Your task to perform on an android device: Open Android settings Image 0: 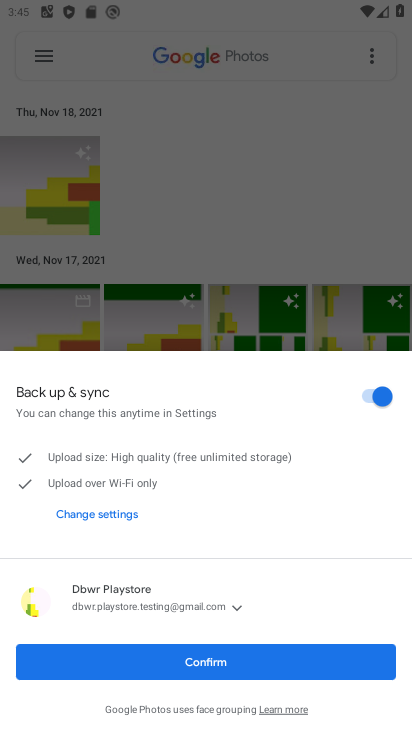
Step 0: press home button
Your task to perform on an android device: Open Android settings Image 1: 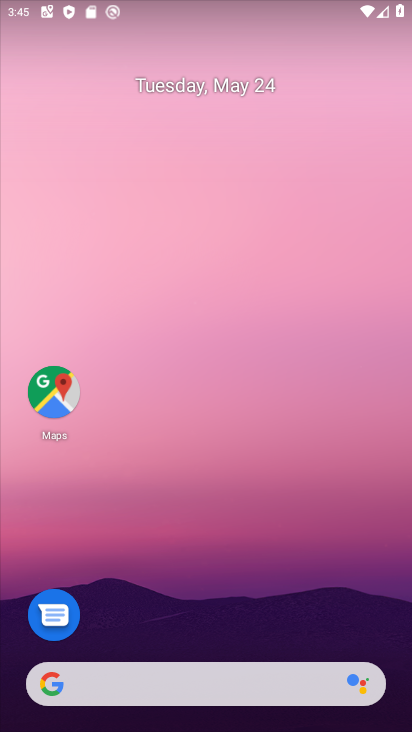
Step 1: drag from (184, 539) to (243, 223)
Your task to perform on an android device: Open Android settings Image 2: 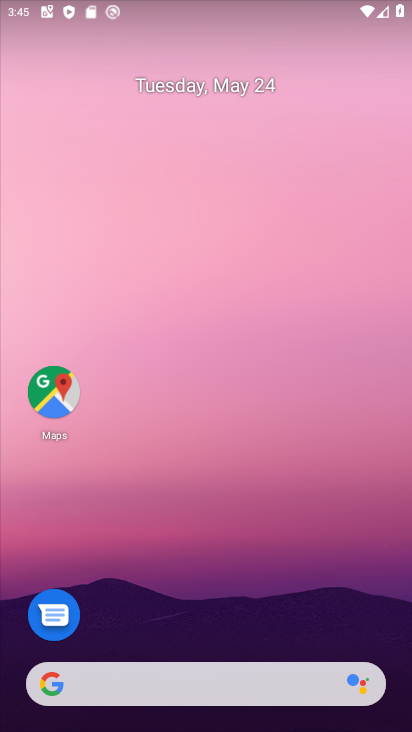
Step 2: drag from (182, 593) to (264, 223)
Your task to perform on an android device: Open Android settings Image 3: 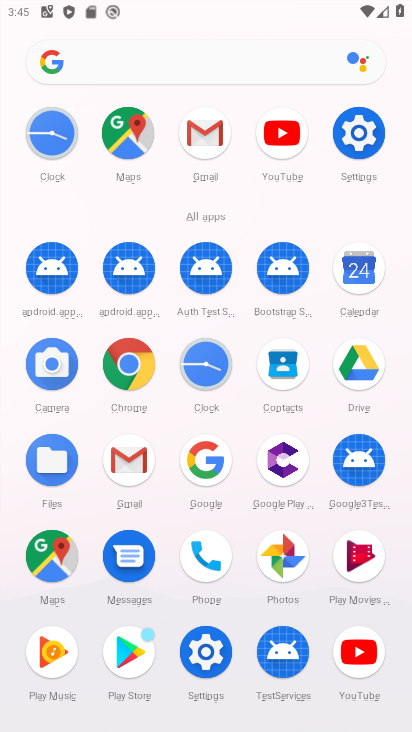
Step 3: click (205, 664)
Your task to perform on an android device: Open Android settings Image 4: 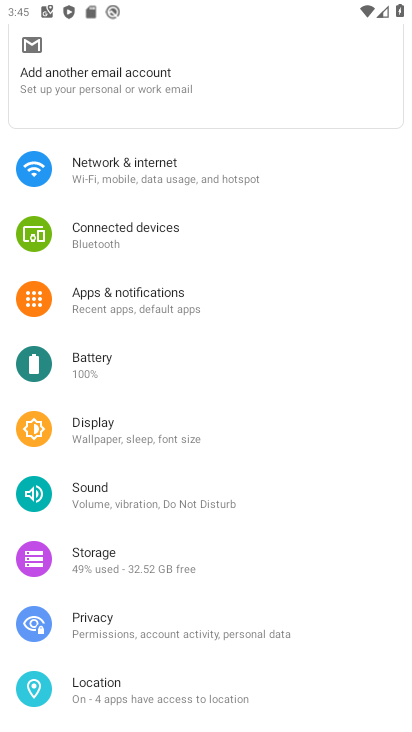
Step 4: task complete